Your task to perform on an android device: Open ESPN.com Image 0: 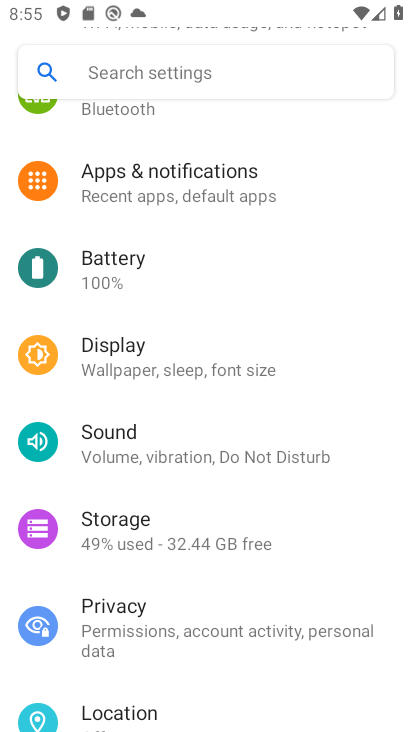
Step 0: press home button
Your task to perform on an android device: Open ESPN.com Image 1: 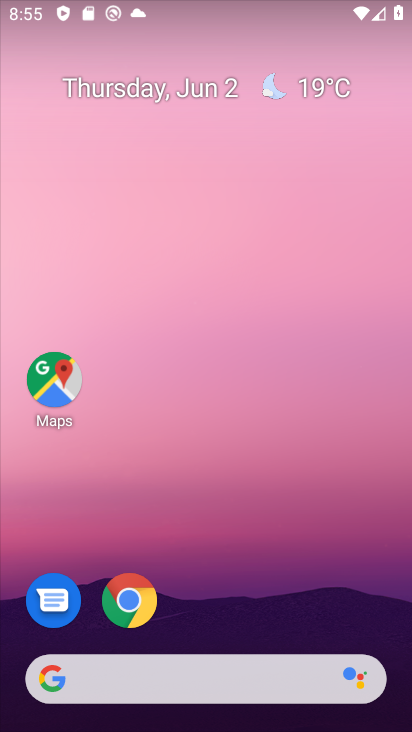
Step 1: click (148, 611)
Your task to perform on an android device: Open ESPN.com Image 2: 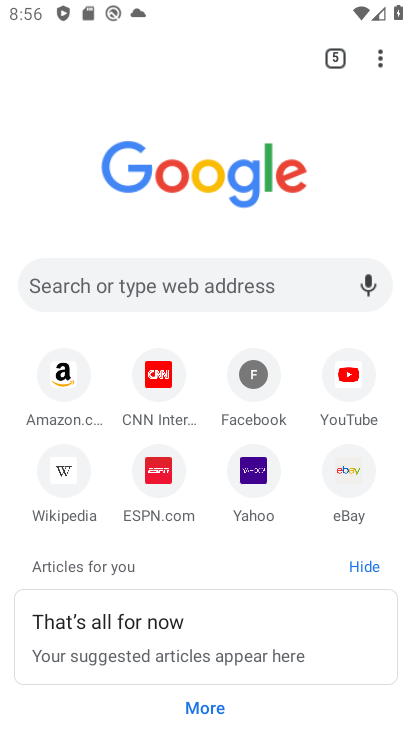
Step 2: click (178, 464)
Your task to perform on an android device: Open ESPN.com Image 3: 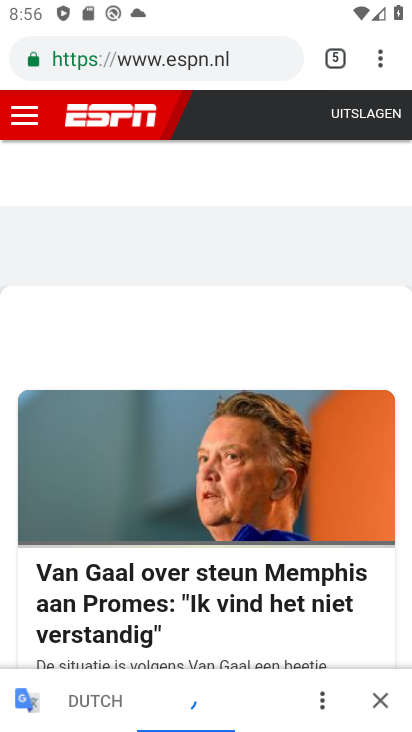
Step 3: task complete